Your task to perform on an android device: change notification settings in the gmail app Image 0: 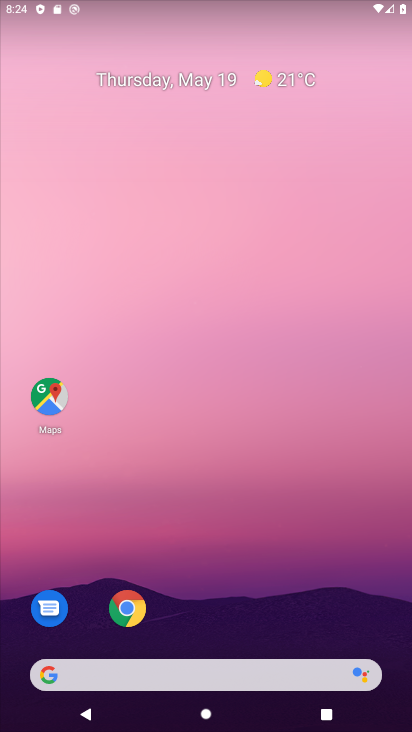
Step 0: drag from (260, 564) to (150, 54)
Your task to perform on an android device: change notification settings in the gmail app Image 1: 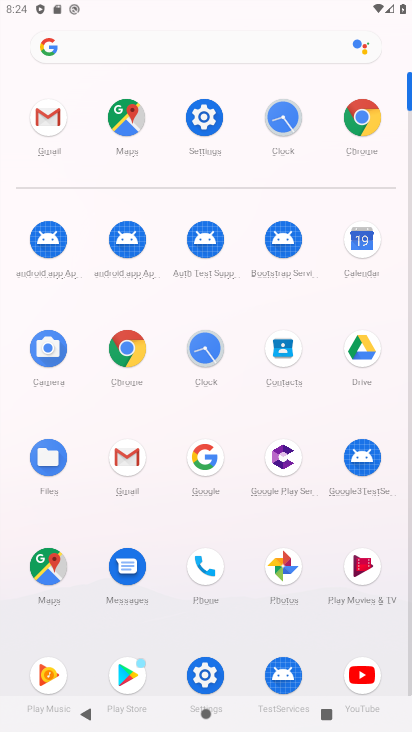
Step 1: click (36, 126)
Your task to perform on an android device: change notification settings in the gmail app Image 2: 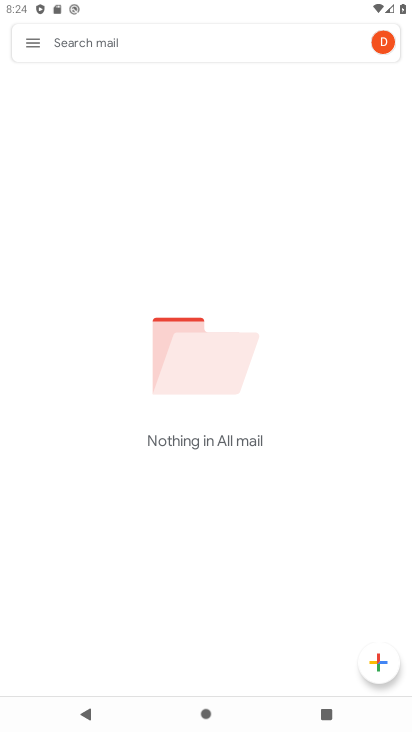
Step 2: click (33, 38)
Your task to perform on an android device: change notification settings in the gmail app Image 3: 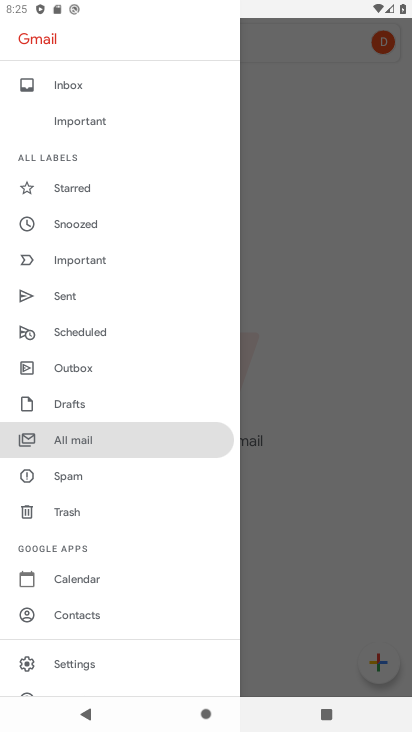
Step 3: drag from (109, 580) to (99, 321)
Your task to perform on an android device: change notification settings in the gmail app Image 4: 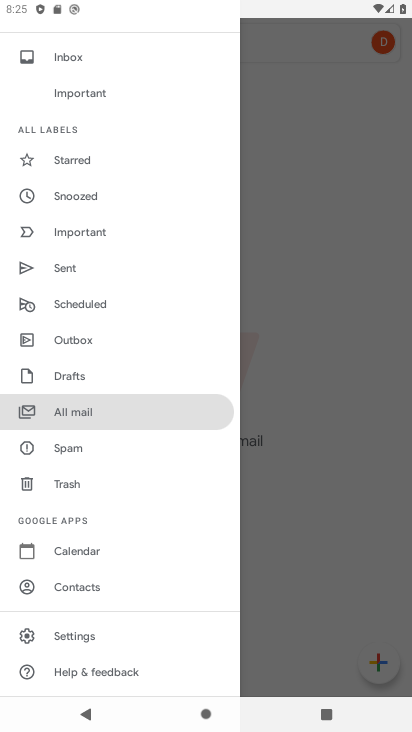
Step 4: click (67, 633)
Your task to perform on an android device: change notification settings in the gmail app Image 5: 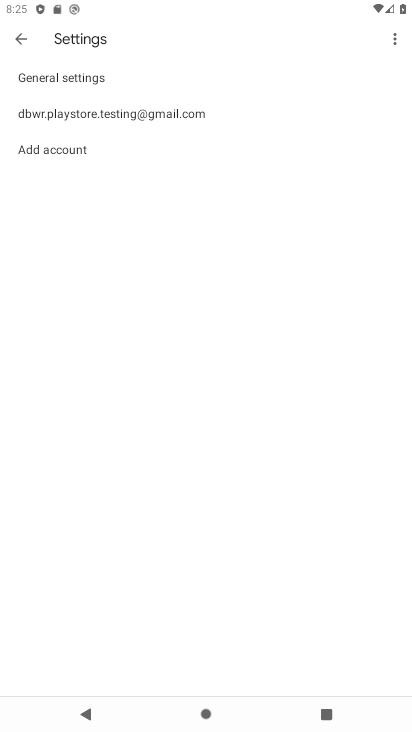
Step 5: click (72, 74)
Your task to perform on an android device: change notification settings in the gmail app Image 6: 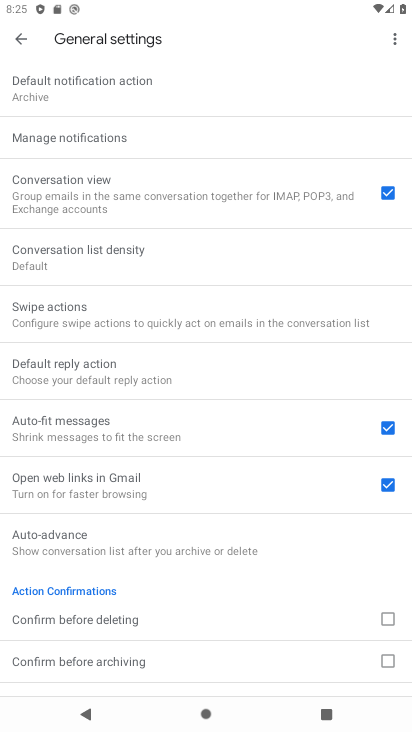
Step 6: click (110, 131)
Your task to perform on an android device: change notification settings in the gmail app Image 7: 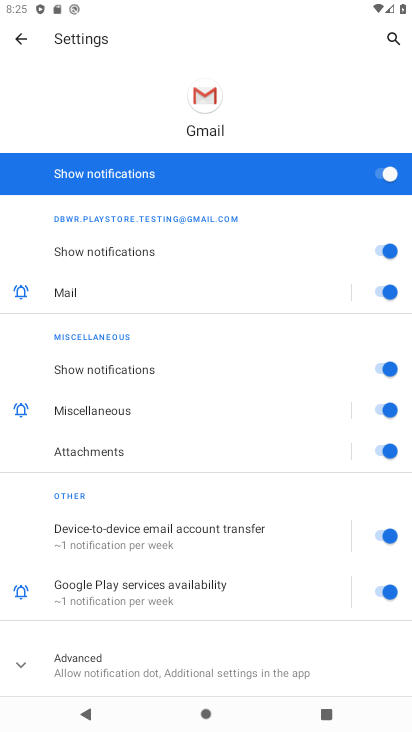
Step 7: click (384, 175)
Your task to perform on an android device: change notification settings in the gmail app Image 8: 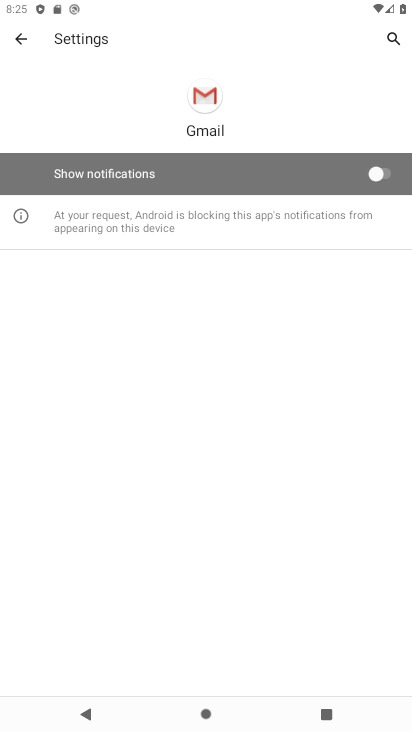
Step 8: task complete